Your task to perform on an android device: empty trash in the gmail app Image 0: 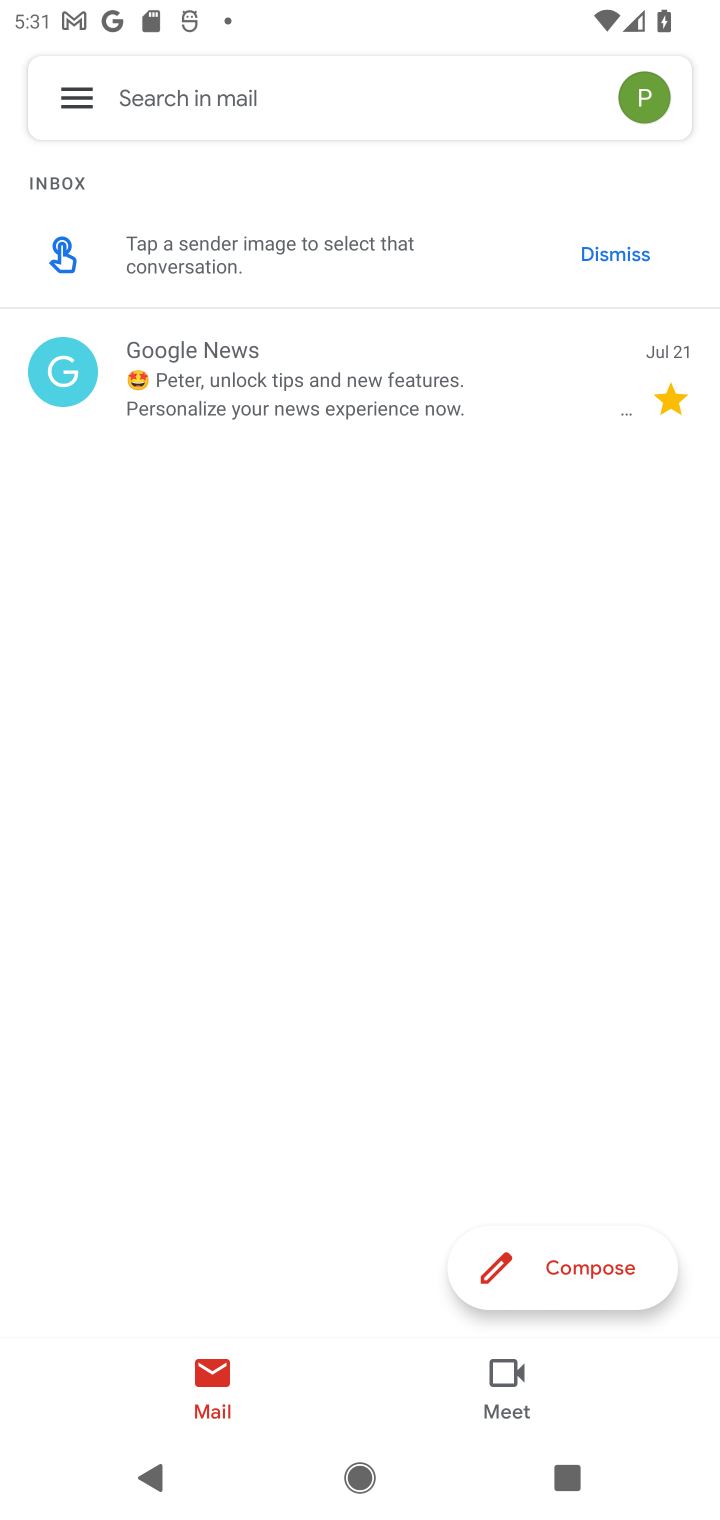
Step 0: press home button
Your task to perform on an android device: empty trash in the gmail app Image 1: 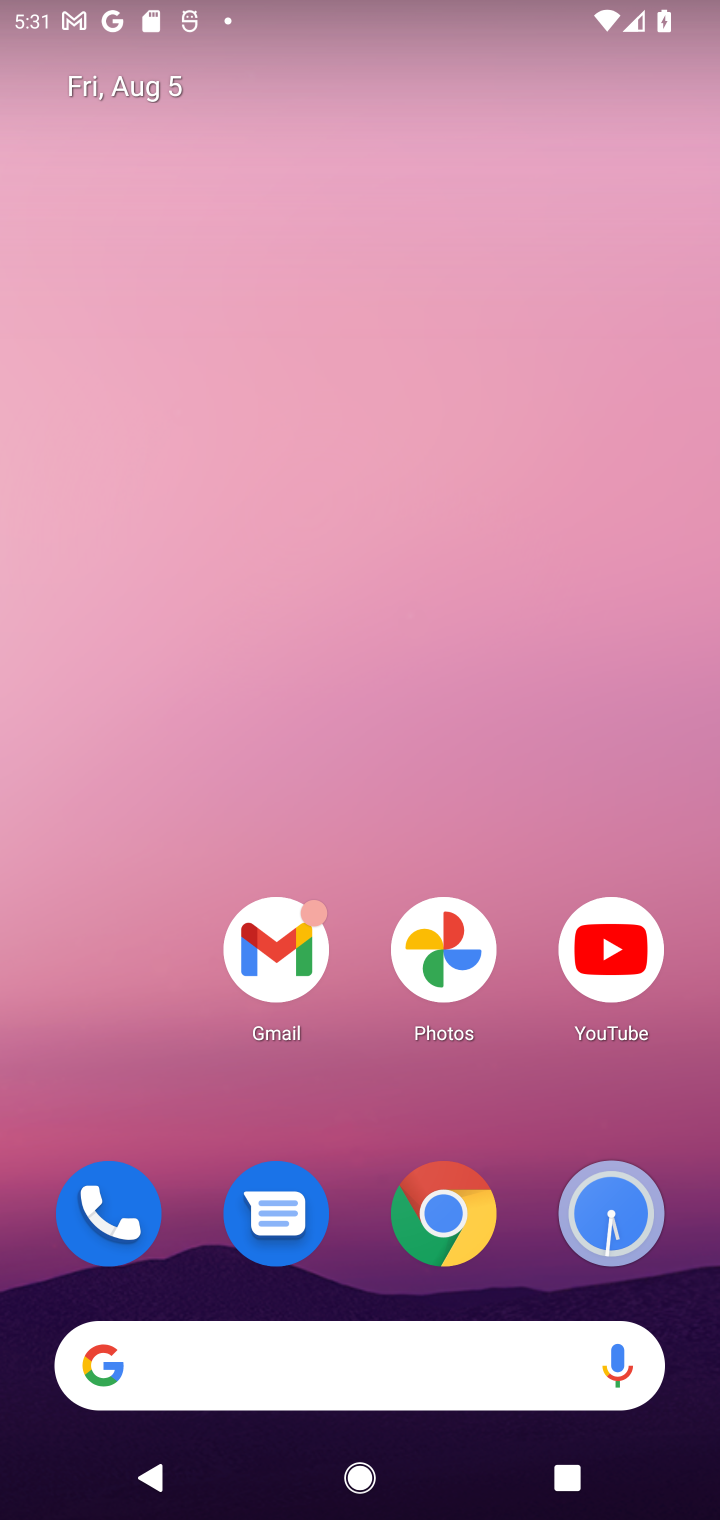
Step 1: click (268, 988)
Your task to perform on an android device: empty trash in the gmail app Image 2: 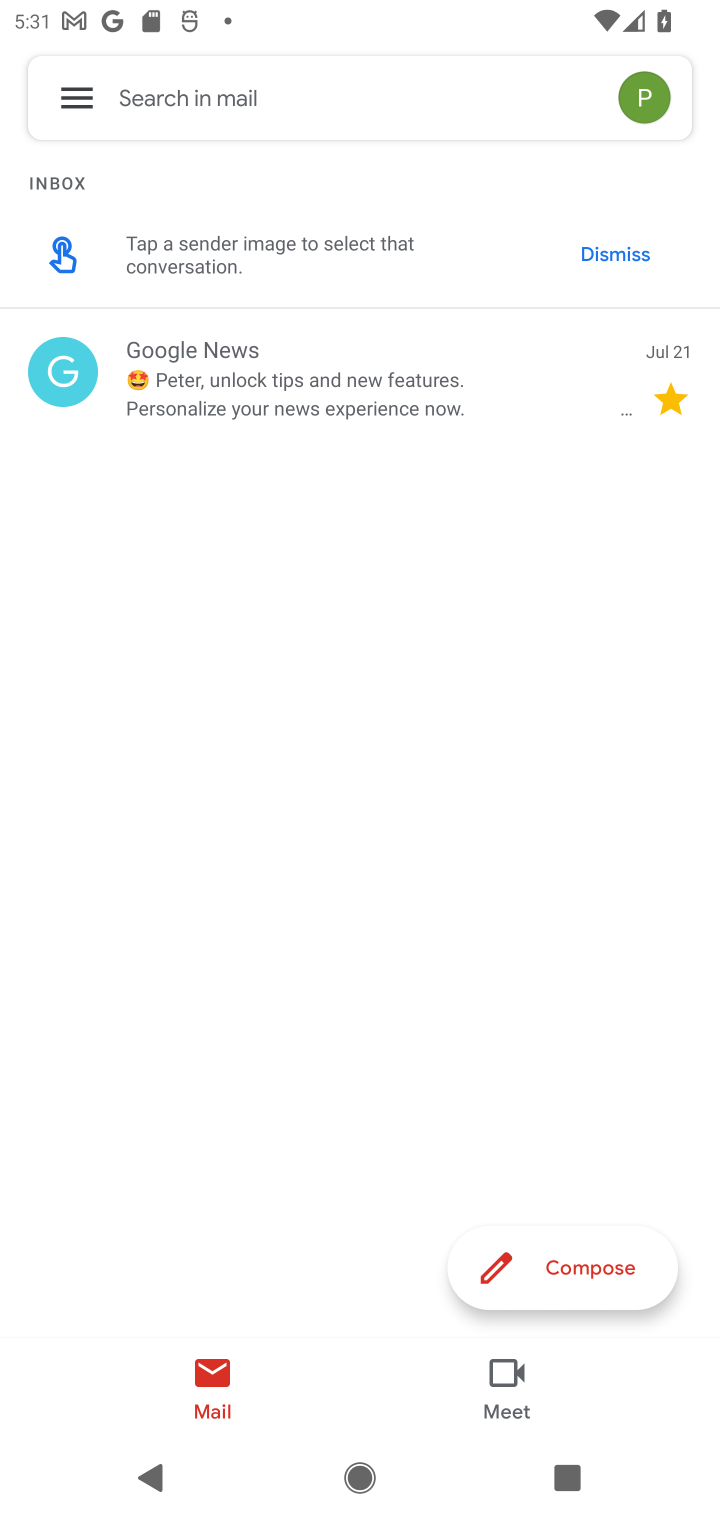
Step 2: click (50, 115)
Your task to perform on an android device: empty trash in the gmail app Image 3: 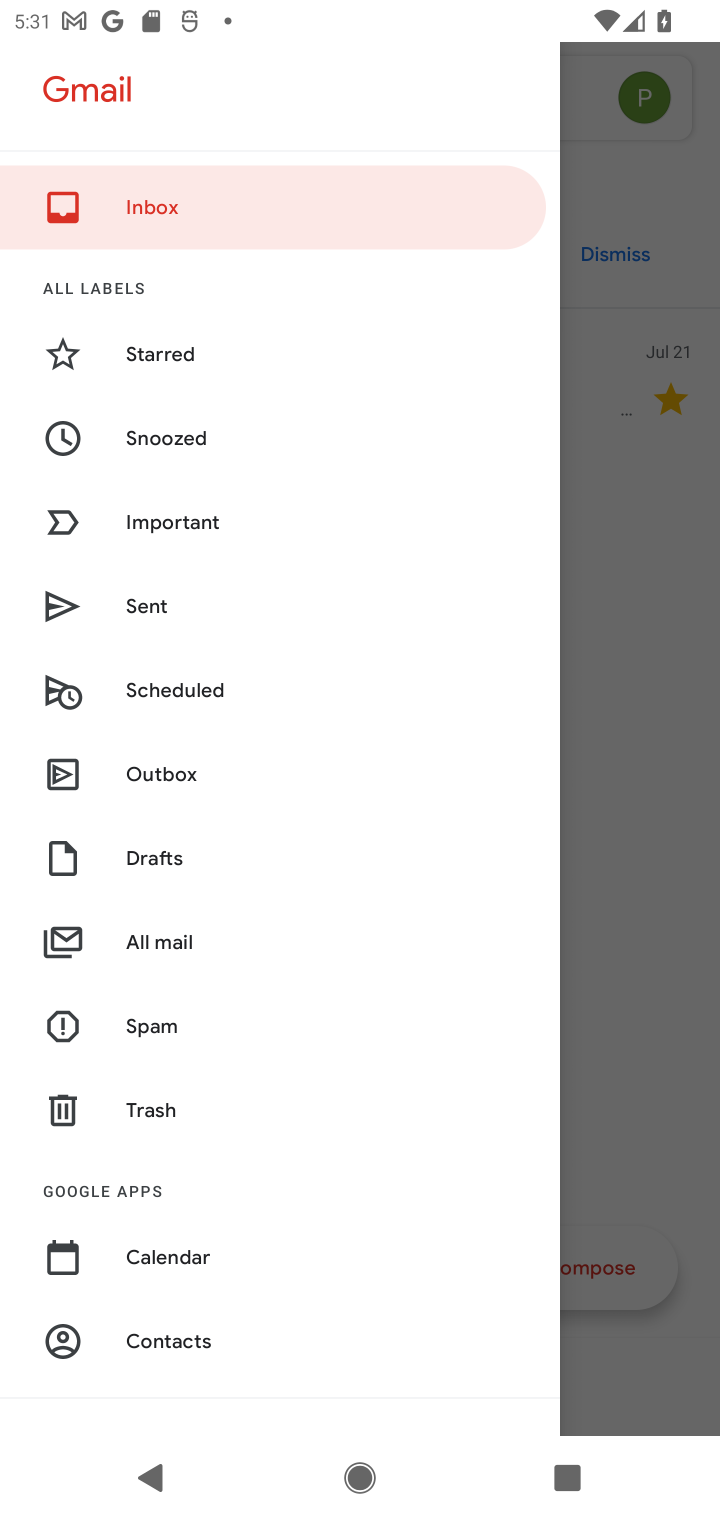
Step 3: drag from (153, 1345) to (296, 464)
Your task to perform on an android device: empty trash in the gmail app Image 4: 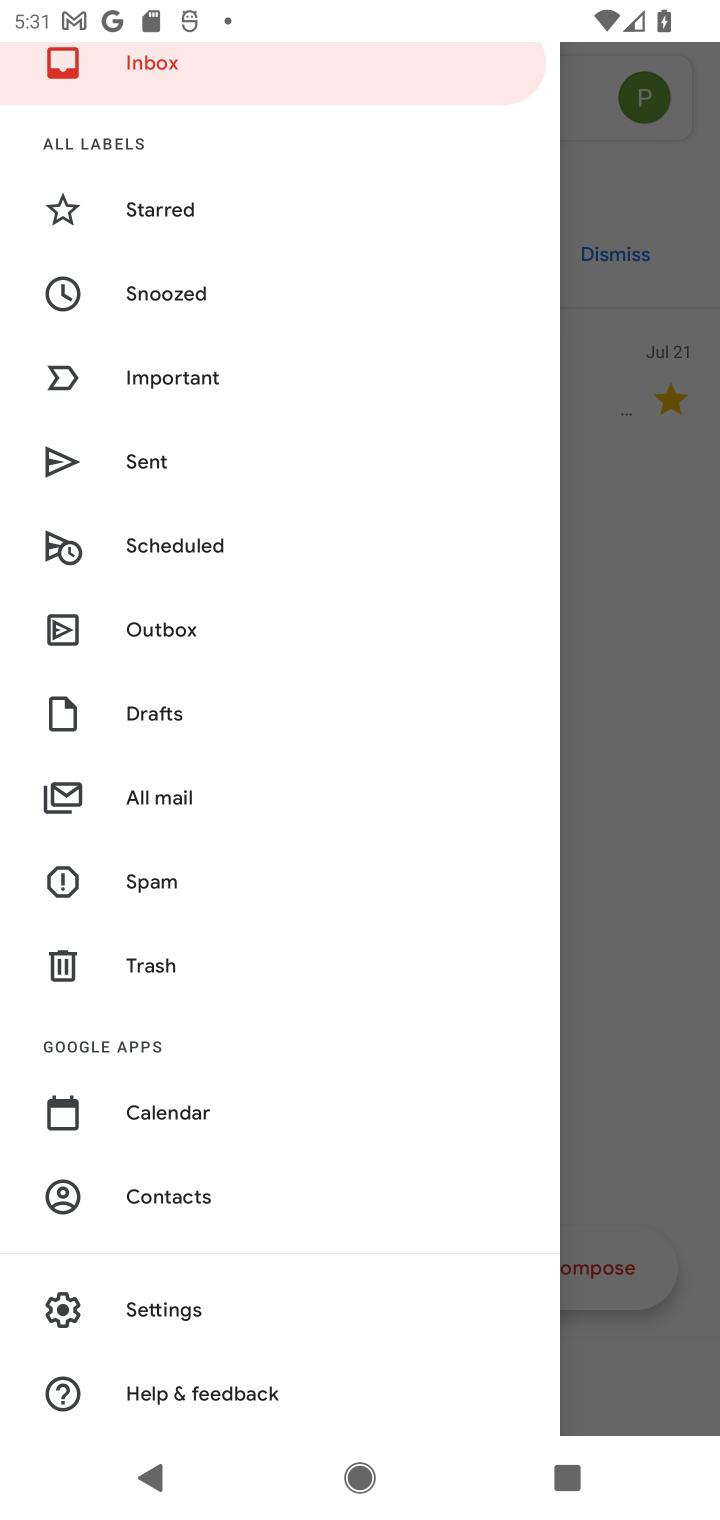
Step 4: click (214, 970)
Your task to perform on an android device: empty trash in the gmail app Image 5: 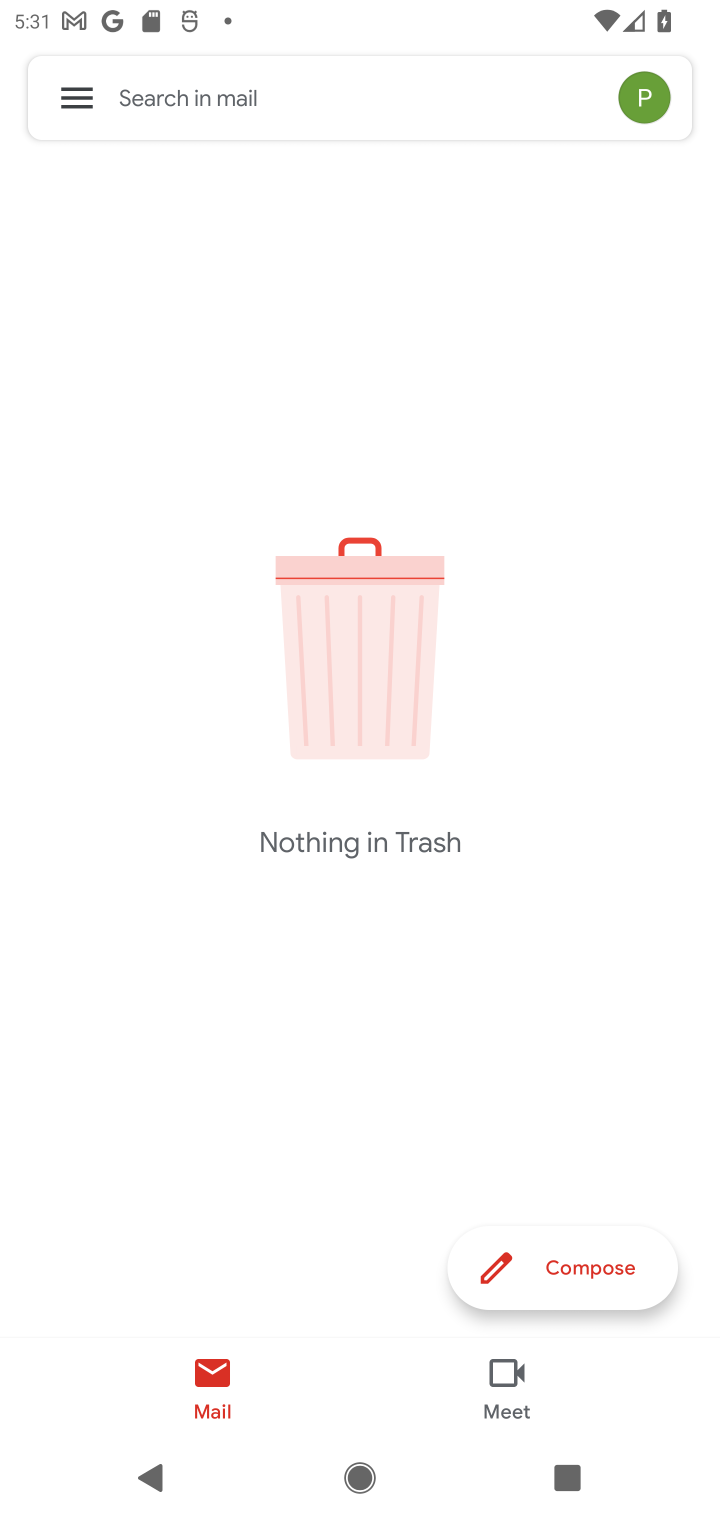
Step 5: task complete